Your task to perform on an android device: Open privacy settings Image 0: 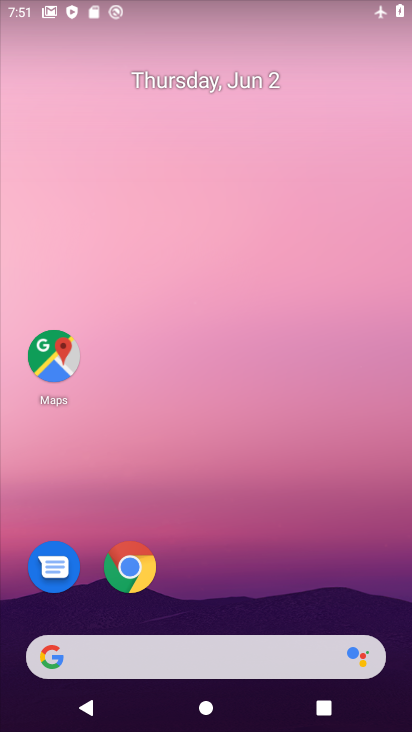
Step 0: drag from (291, 551) to (237, 143)
Your task to perform on an android device: Open privacy settings Image 1: 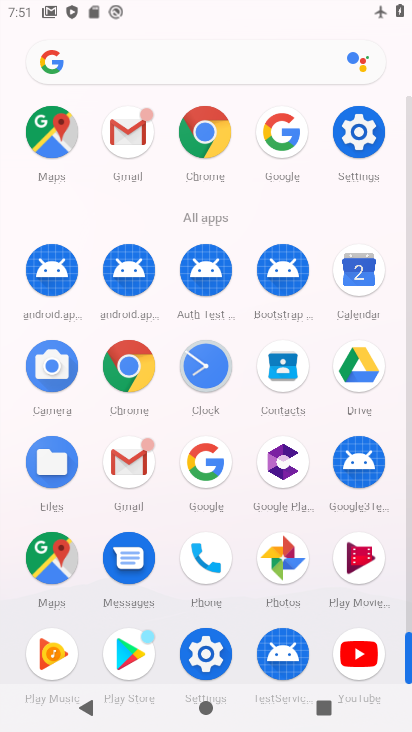
Step 1: click (359, 131)
Your task to perform on an android device: Open privacy settings Image 2: 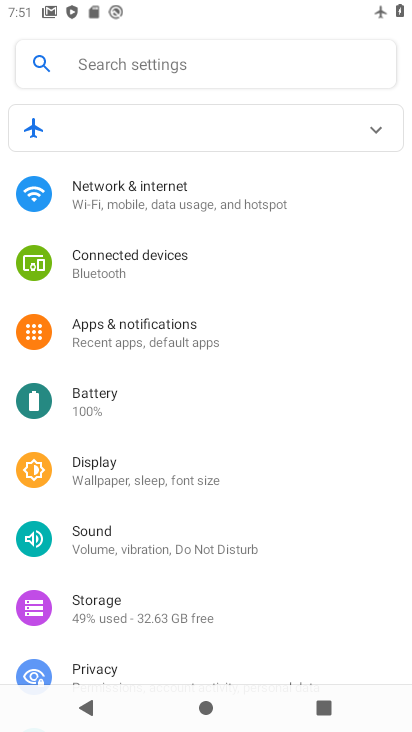
Step 2: drag from (153, 525) to (173, 404)
Your task to perform on an android device: Open privacy settings Image 3: 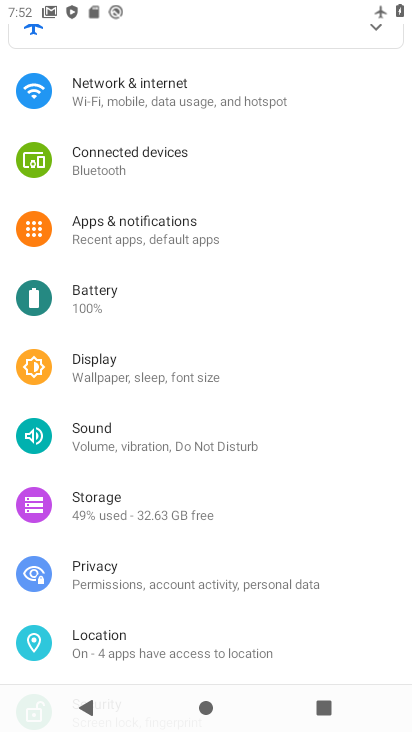
Step 3: click (154, 580)
Your task to perform on an android device: Open privacy settings Image 4: 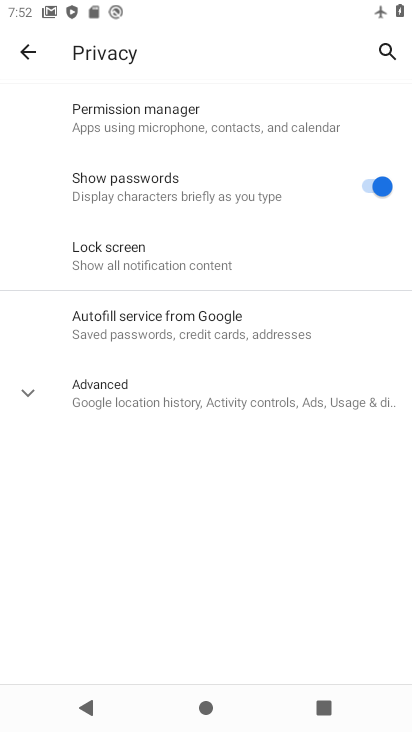
Step 4: task complete